Your task to perform on an android device: toggle translation in the chrome app Image 0: 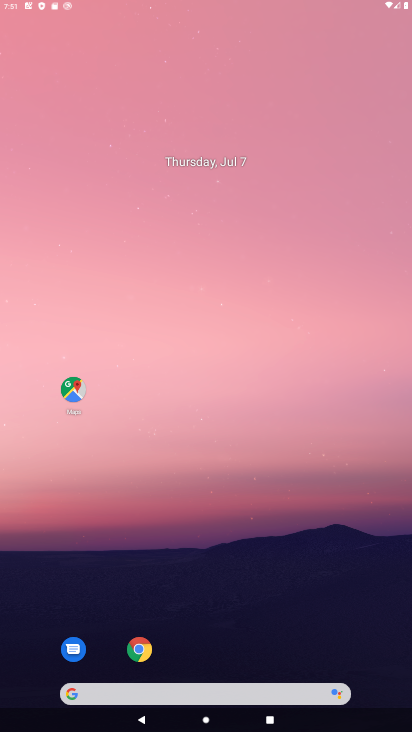
Step 0: drag from (205, 41) to (390, 236)
Your task to perform on an android device: toggle translation in the chrome app Image 1: 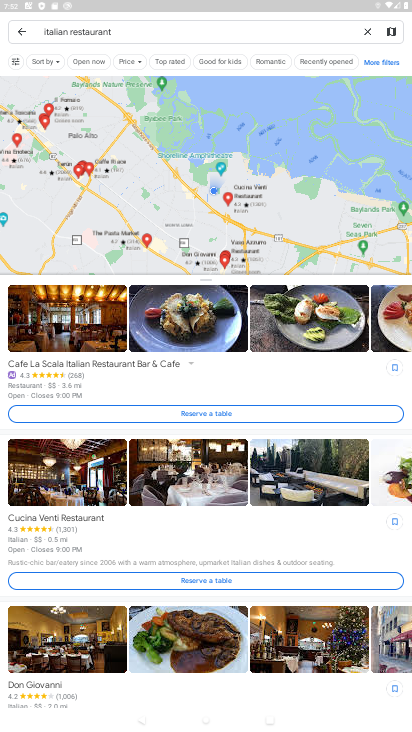
Step 1: press back button
Your task to perform on an android device: toggle translation in the chrome app Image 2: 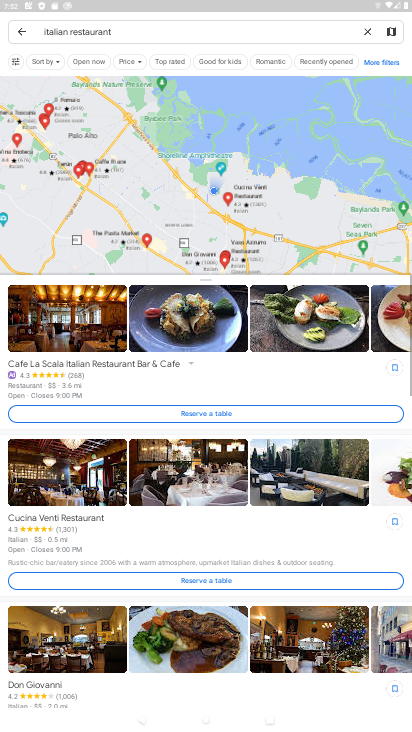
Step 2: press back button
Your task to perform on an android device: toggle translation in the chrome app Image 3: 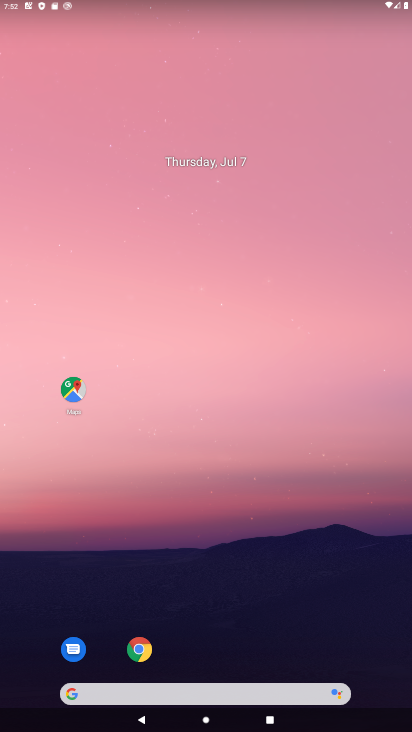
Step 3: drag from (263, 657) to (220, 247)
Your task to perform on an android device: toggle translation in the chrome app Image 4: 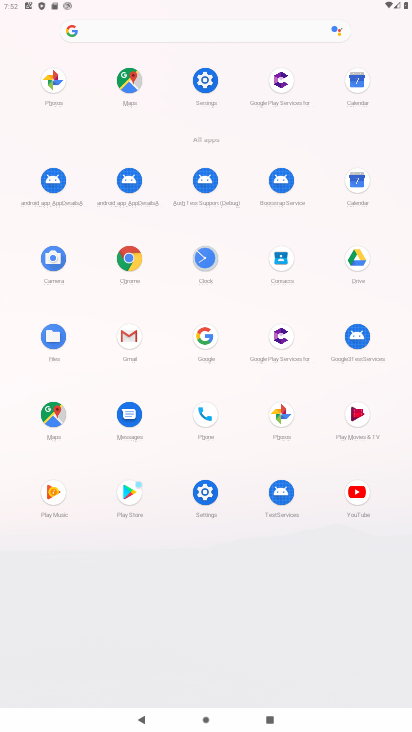
Step 4: click (136, 249)
Your task to perform on an android device: toggle translation in the chrome app Image 5: 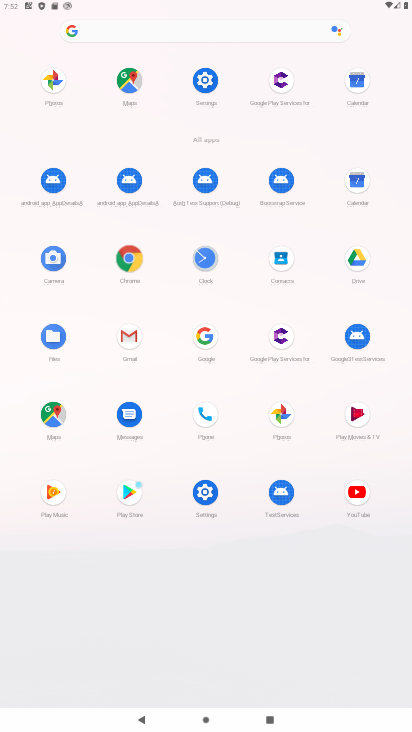
Step 5: click (123, 263)
Your task to perform on an android device: toggle translation in the chrome app Image 6: 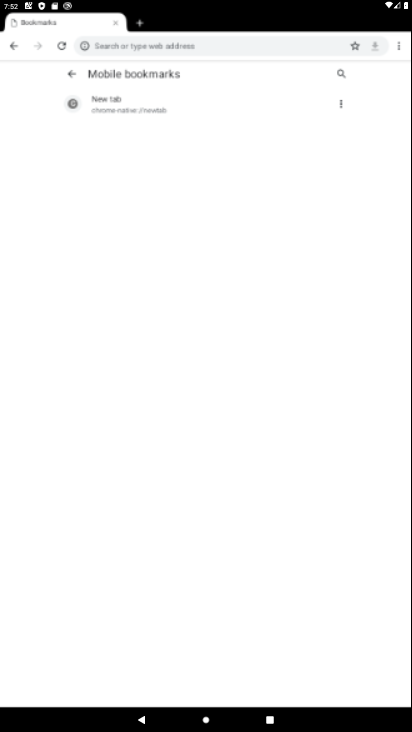
Step 6: click (123, 265)
Your task to perform on an android device: toggle translation in the chrome app Image 7: 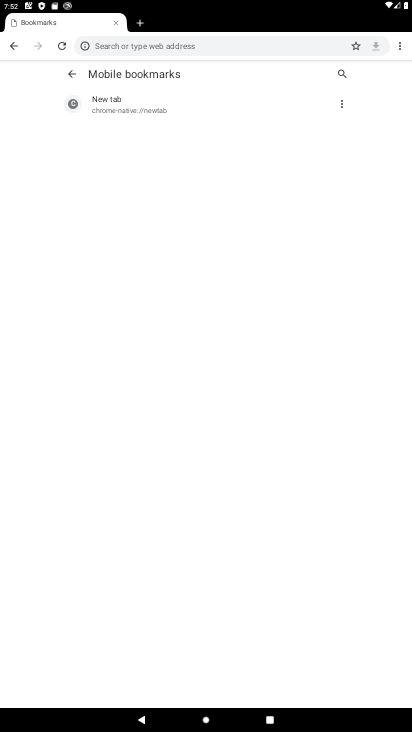
Step 7: drag from (400, 48) to (313, 215)
Your task to perform on an android device: toggle translation in the chrome app Image 8: 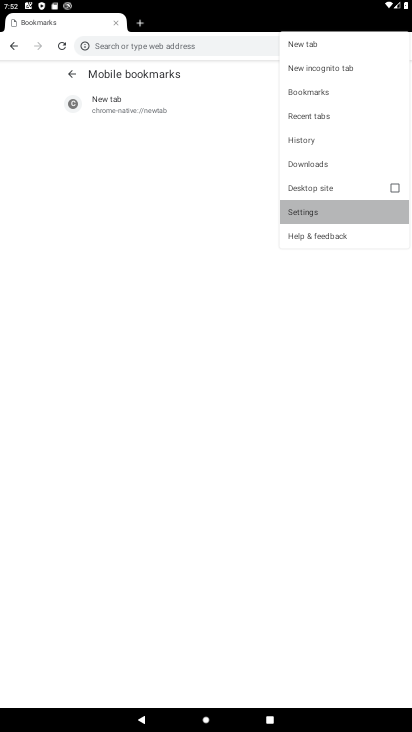
Step 8: click (309, 215)
Your task to perform on an android device: toggle translation in the chrome app Image 9: 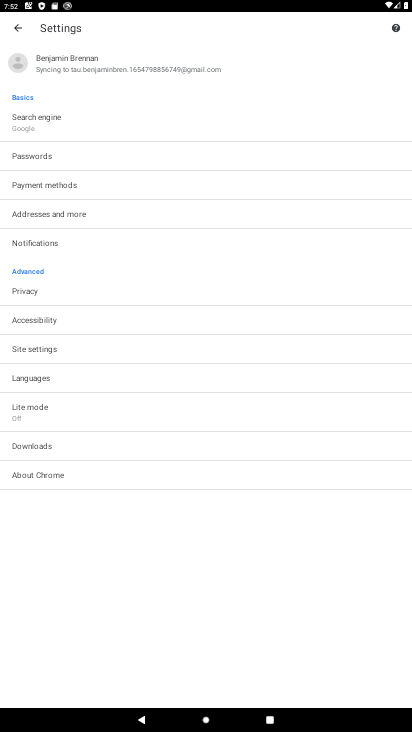
Step 9: click (46, 374)
Your task to perform on an android device: toggle translation in the chrome app Image 10: 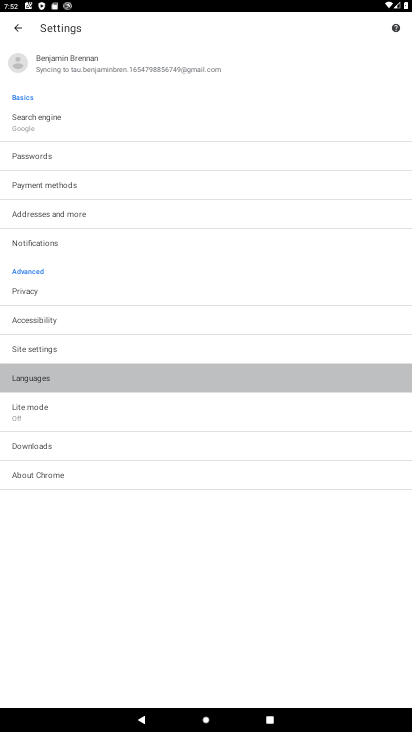
Step 10: click (46, 374)
Your task to perform on an android device: toggle translation in the chrome app Image 11: 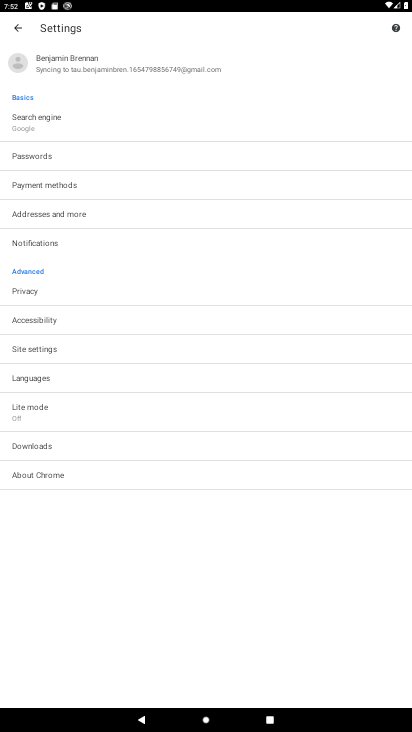
Step 11: click (48, 376)
Your task to perform on an android device: toggle translation in the chrome app Image 12: 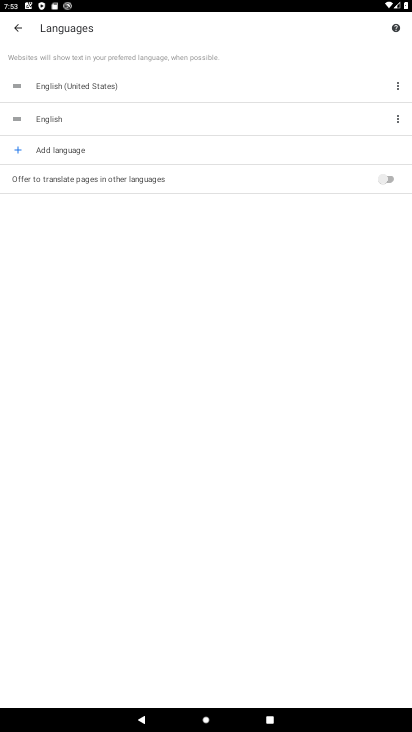
Step 12: click (391, 179)
Your task to perform on an android device: toggle translation in the chrome app Image 13: 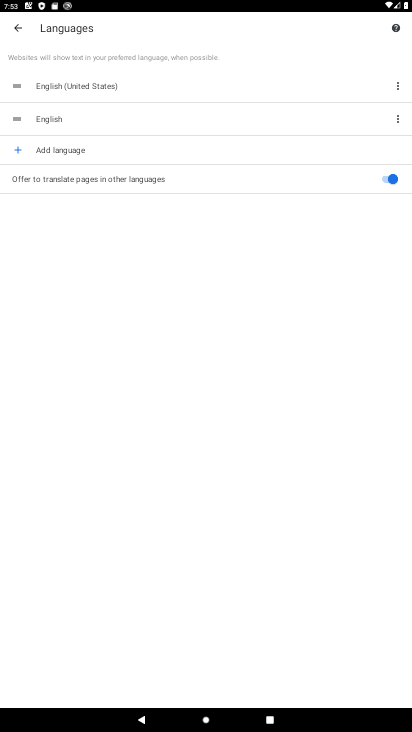
Step 13: task complete